Your task to perform on an android device: remove spam from my inbox in the gmail app Image 0: 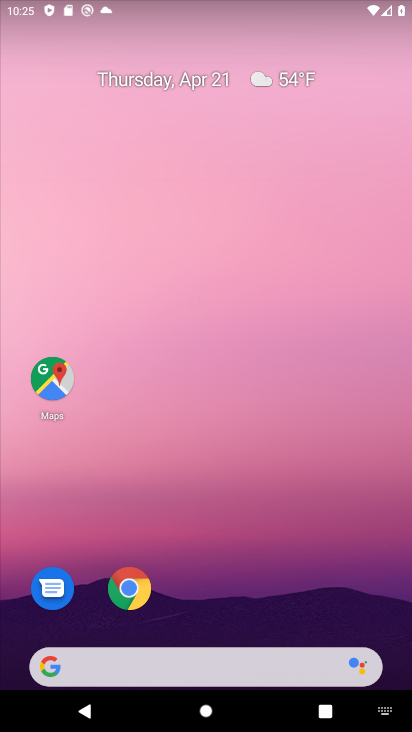
Step 0: drag from (267, 596) to (253, 75)
Your task to perform on an android device: remove spam from my inbox in the gmail app Image 1: 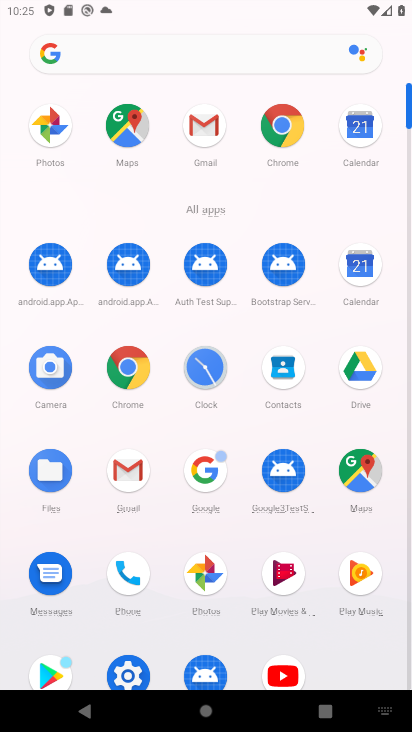
Step 1: drag from (258, 354) to (217, 15)
Your task to perform on an android device: remove spam from my inbox in the gmail app Image 2: 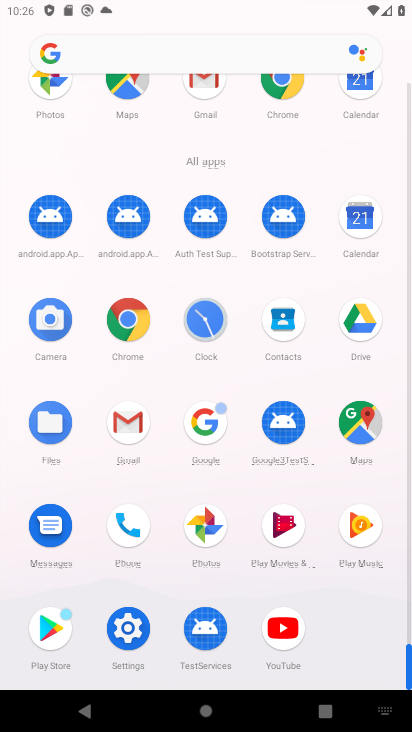
Step 2: drag from (325, 604) to (253, 279)
Your task to perform on an android device: remove spam from my inbox in the gmail app Image 3: 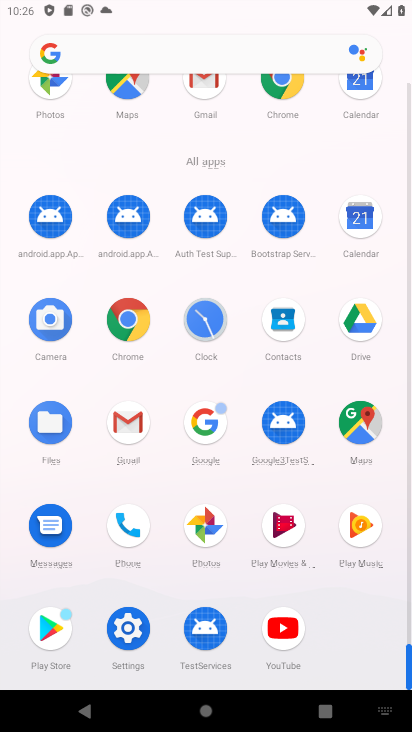
Step 3: click (126, 466)
Your task to perform on an android device: remove spam from my inbox in the gmail app Image 4: 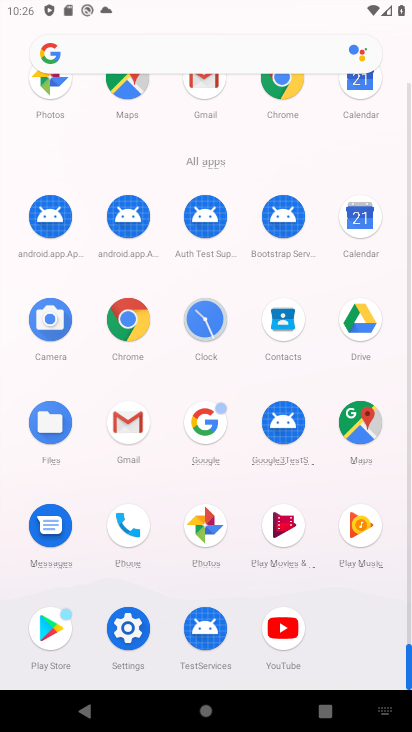
Step 4: click (130, 436)
Your task to perform on an android device: remove spam from my inbox in the gmail app Image 5: 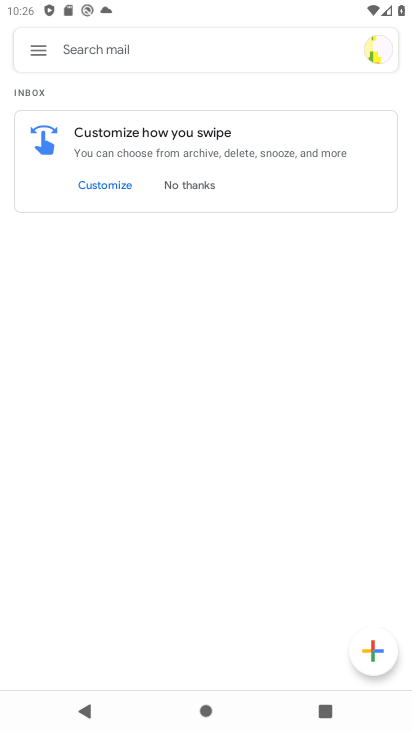
Step 5: click (39, 47)
Your task to perform on an android device: remove spam from my inbox in the gmail app Image 6: 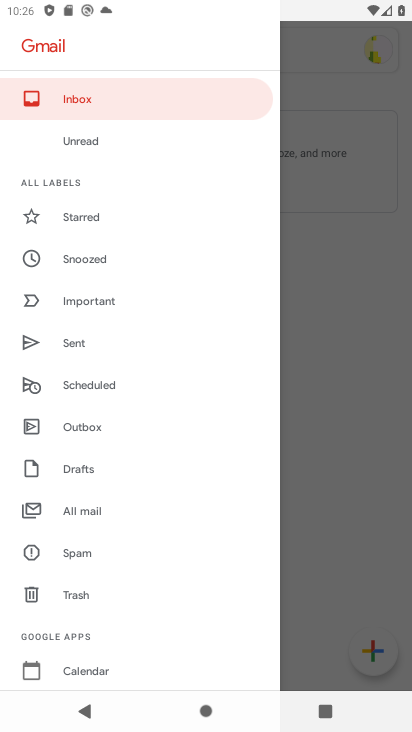
Step 6: drag from (168, 640) to (162, 332)
Your task to perform on an android device: remove spam from my inbox in the gmail app Image 7: 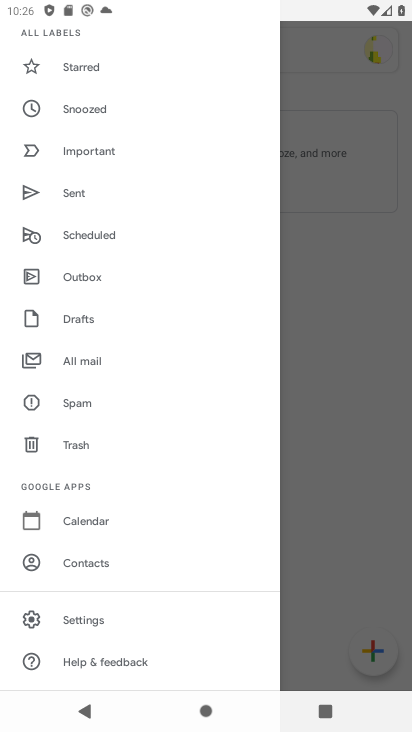
Step 7: click (92, 407)
Your task to perform on an android device: remove spam from my inbox in the gmail app Image 8: 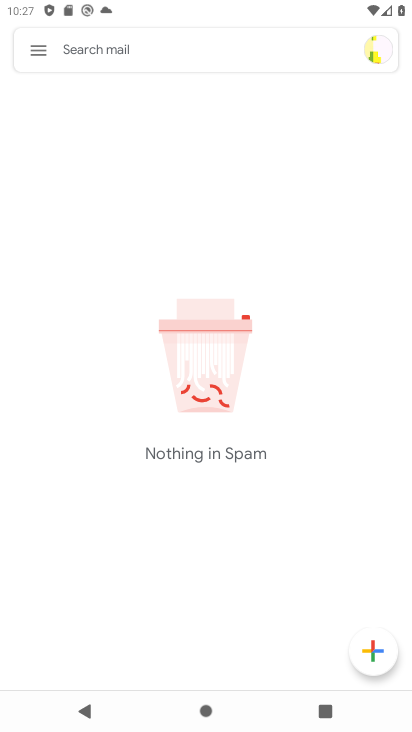
Step 8: task complete